Your task to perform on an android device: set an alarm Image 0: 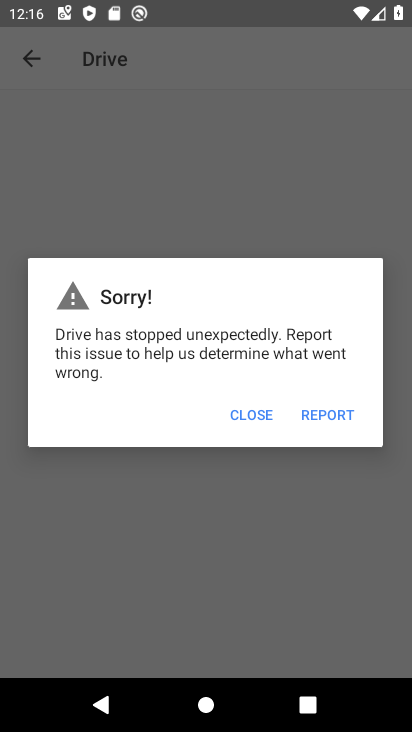
Step 0: press home button
Your task to perform on an android device: set an alarm Image 1: 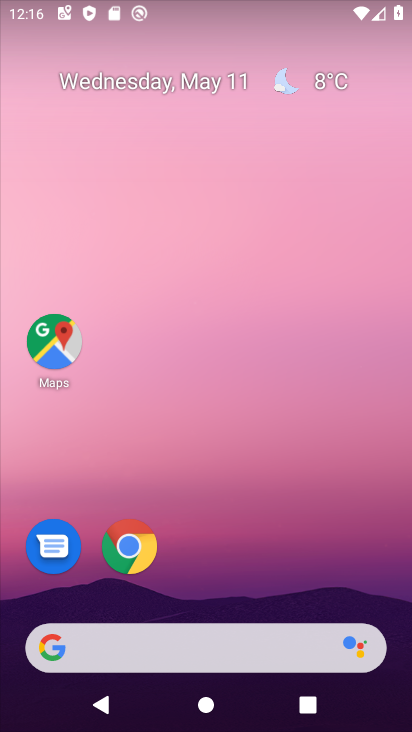
Step 1: drag from (178, 649) to (358, 116)
Your task to perform on an android device: set an alarm Image 2: 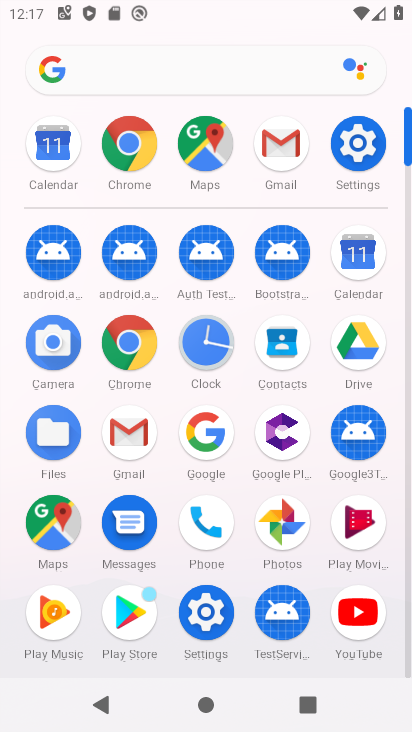
Step 2: click (206, 357)
Your task to perform on an android device: set an alarm Image 3: 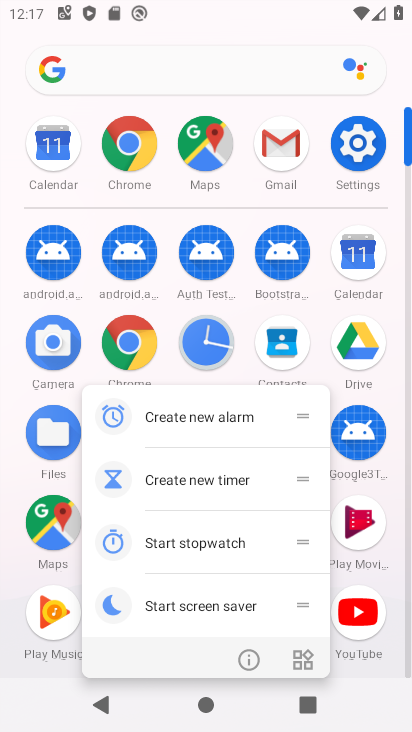
Step 3: click (208, 351)
Your task to perform on an android device: set an alarm Image 4: 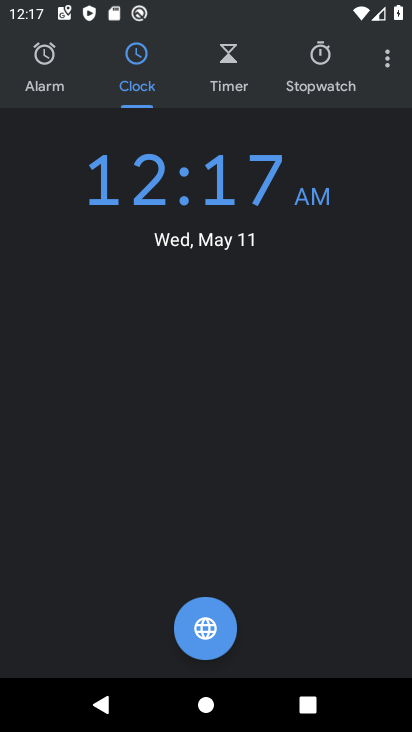
Step 4: click (39, 65)
Your task to perform on an android device: set an alarm Image 5: 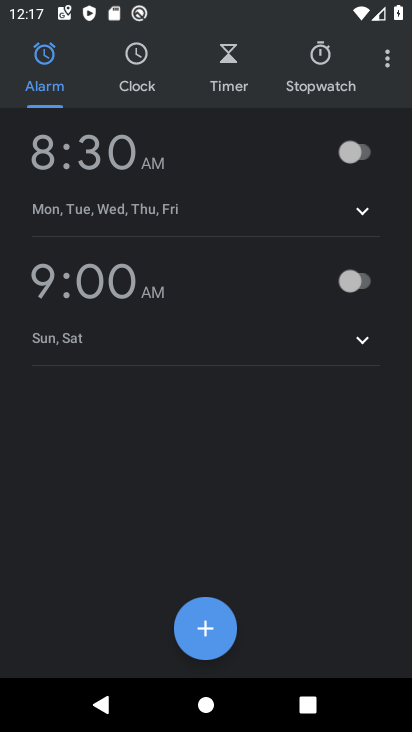
Step 5: click (79, 171)
Your task to perform on an android device: set an alarm Image 6: 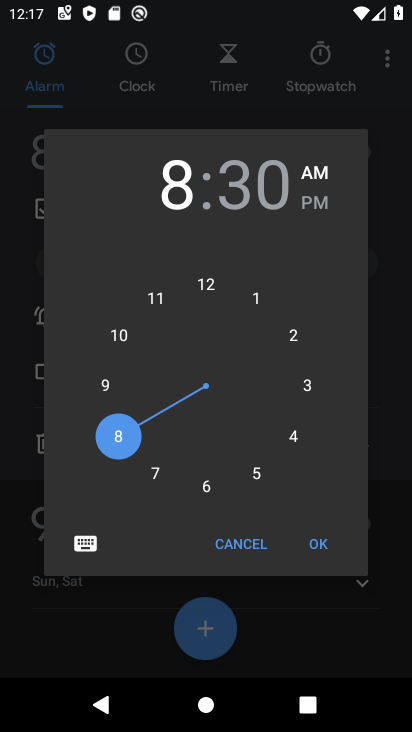
Step 6: click (160, 301)
Your task to perform on an android device: set an alarm Image 7: 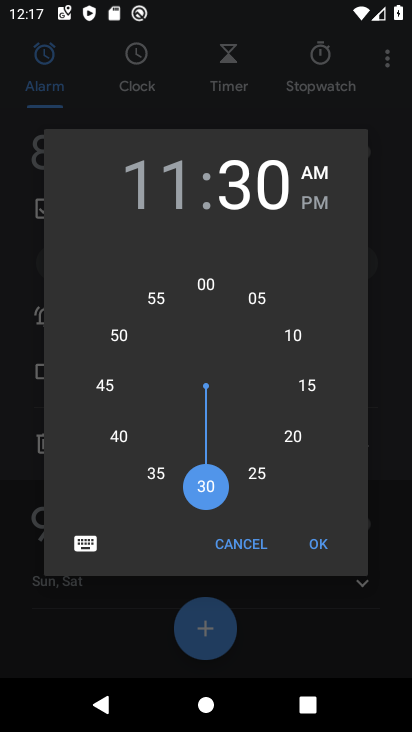
Step 7: click (315, 551)
Your task to perform on an android device: set an alarm Image 8: 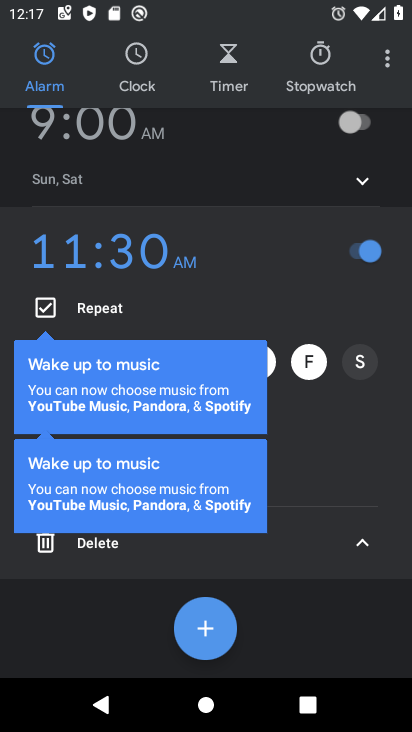
Step 8: task complete